Your task to perform on an android device: Open calendar and show me the fourth week of next month Image 0: 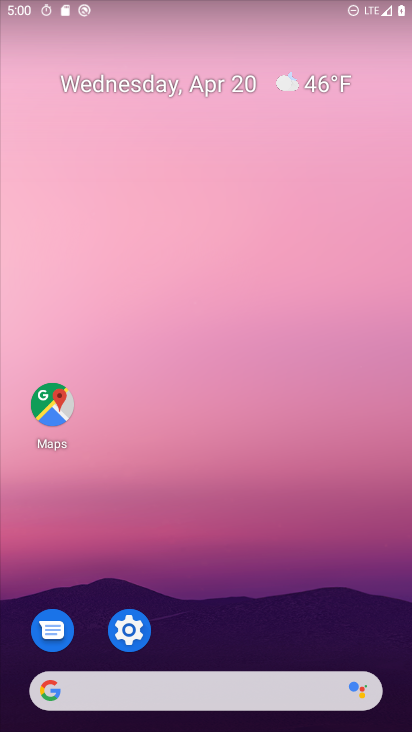
Step 0: drag from (224, 676) to (392, 629)
Your task to perform on an android device: Open calendar and show me the fourth week of next month Image 1: 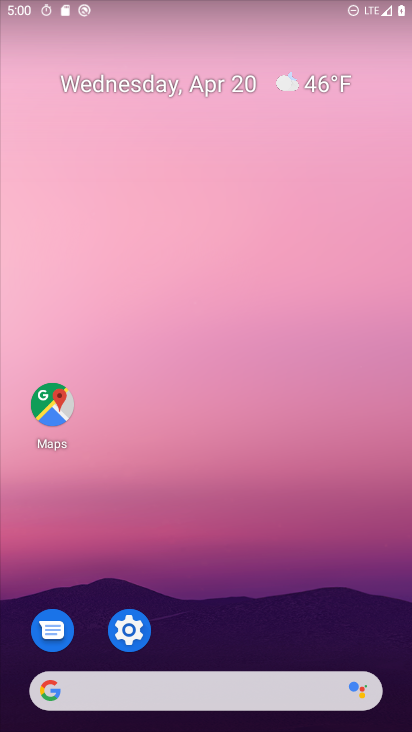
Step 1: drag from (341, 680) to (288, 33)
Your task to perform on an android device: Open calendar and show me the fourth week of next month Image 2: 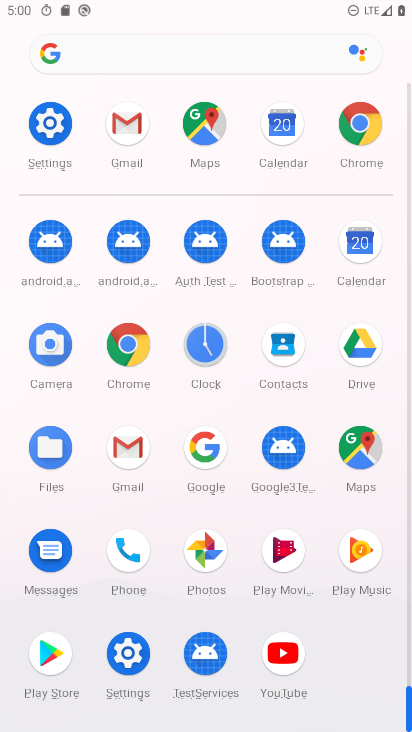
Step 2: click (364, 252)
Your task to perform on an android device: Open calendar and show me the fourth week of next month Image 3: 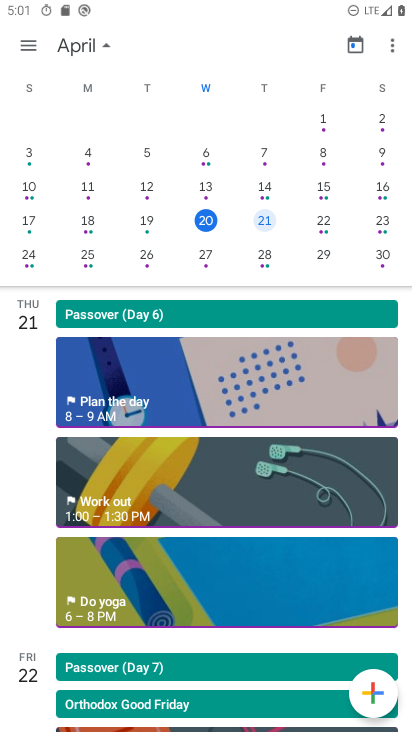
Step 3: drag from (387, 234) to (111, 217)
Your task to perform on an android device: Open calendar and show me the fourth week of next month Image 4: 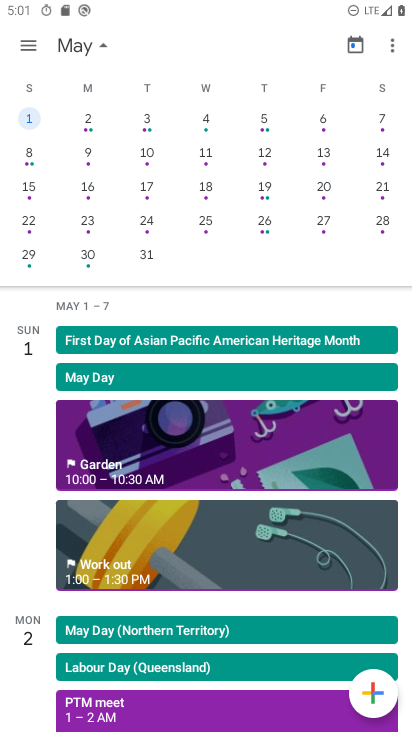
Step 4: click (266, 222)
Your task to perform on an android device: Open calendar and show me the fourth week of next month Image 5: 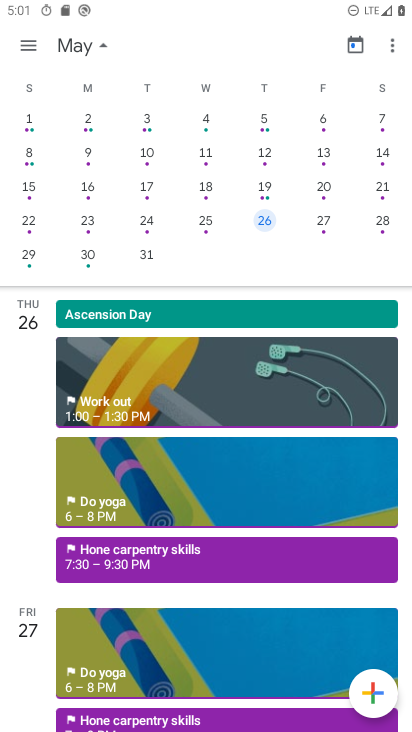
Step 5: task complete